Your task to perform on an android device: Open wifi settings Image 0: 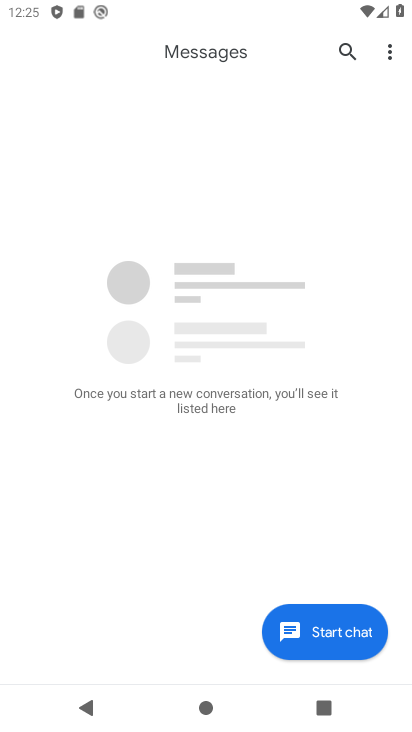
Step 0: press home button
Your task to perform on an android device: Open wifi settings Image 1: 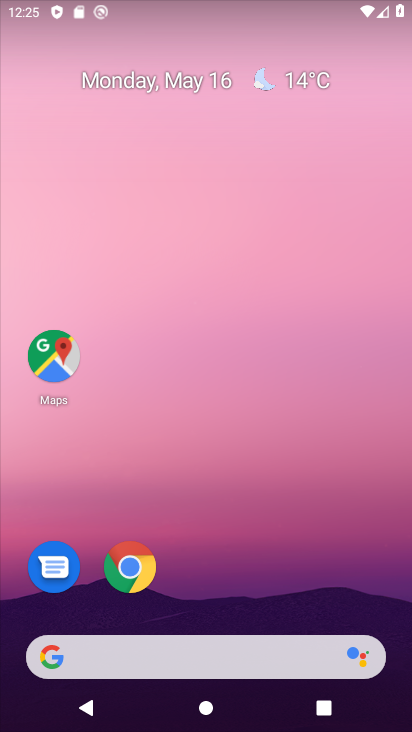
Step 1: drag from (261, 511) to (186, 21)
Your task to perform on an android device: Open wifi settings Image 2: 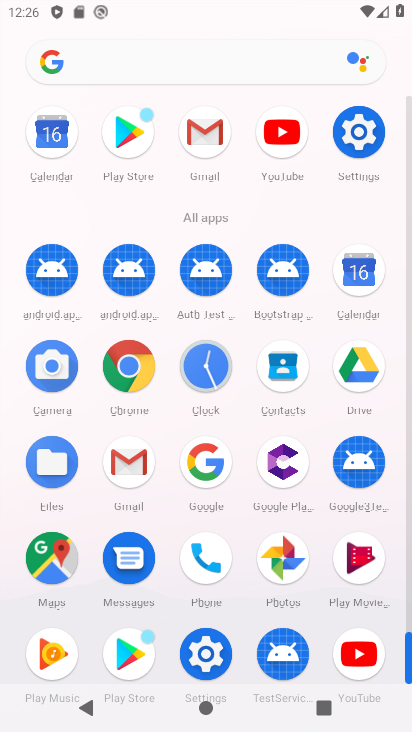
Step 2: click (348, 131)
Your task to perform on an android device: Open wifi settings Image 3: 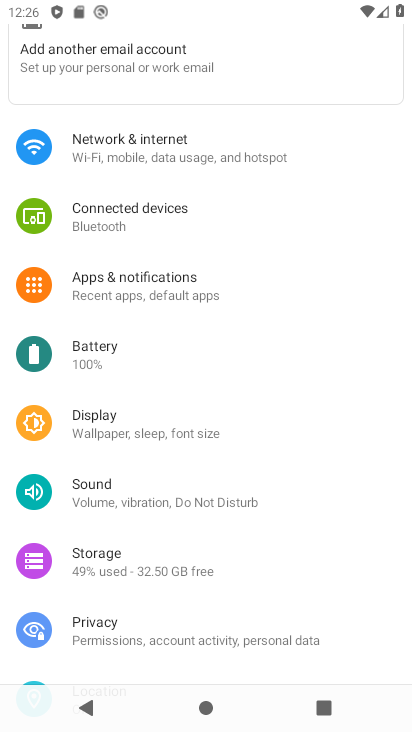
Step 3: click (123, 143)
Your task to perform on an android device: Open wifi settings Image 4: 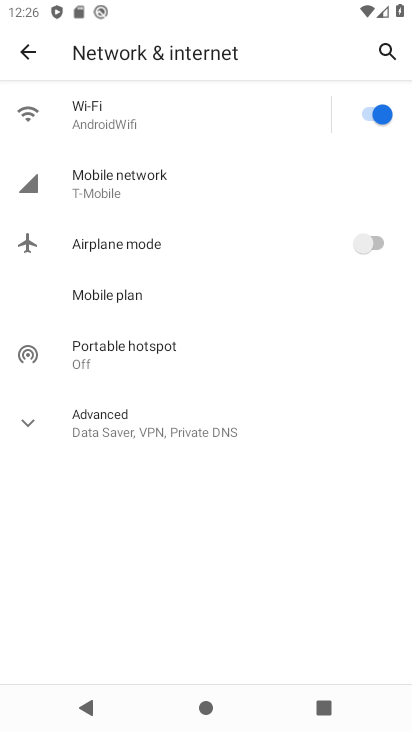
Step 4: task complete